Your task to perform on an android device: Search for Mexican restaurants on Maps Image 0: 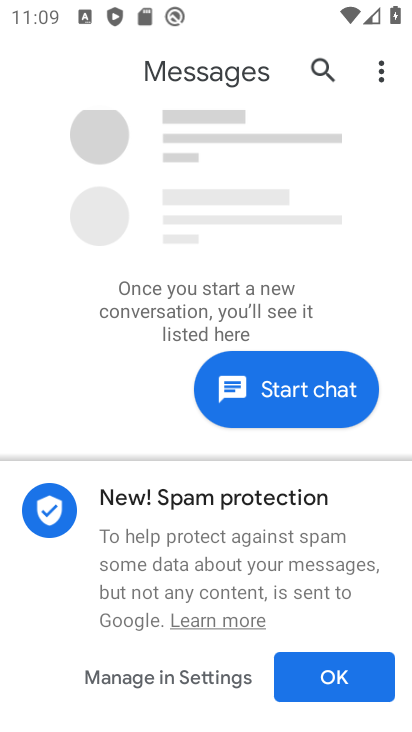
Step 0: press home button
Your task to perform on an android device: Search for Mexican restaurants on Maps Image 1: 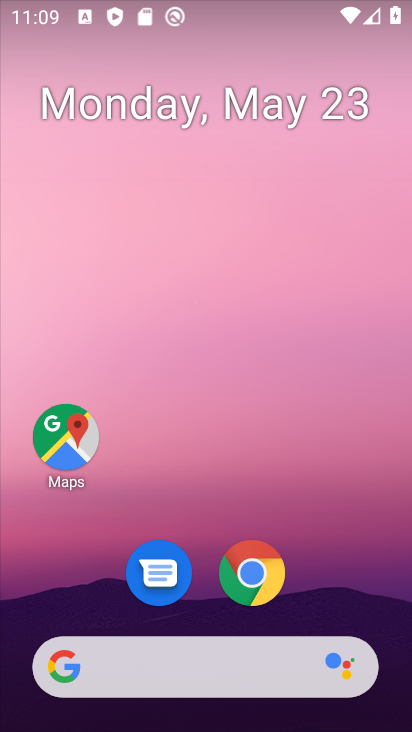
Step 1: click (68, 448)
Your task to perform on an android device: Search for Mexican restaurants on Maps Image 2: 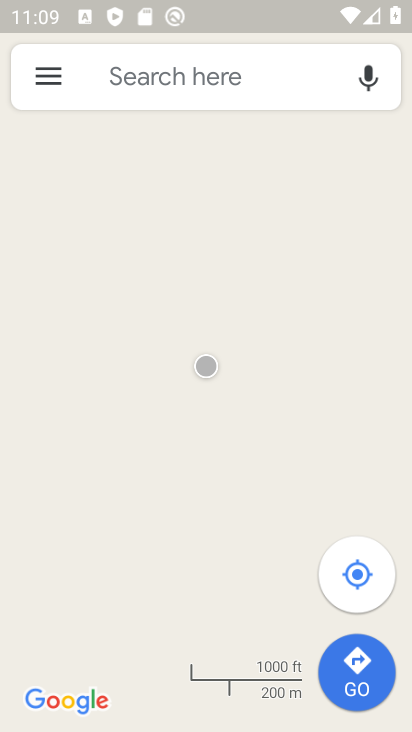
Step 2: click (191, 77)
Your task to perform on an android device: Search for Mexican restaurants on Maps Image 3: 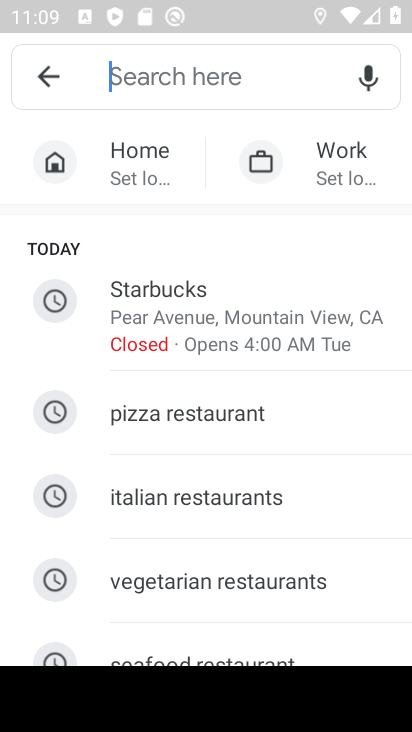
Step 3: type "me"
Your task to perform on an android device: Search for Mexican restaurants on Maps Image 4: 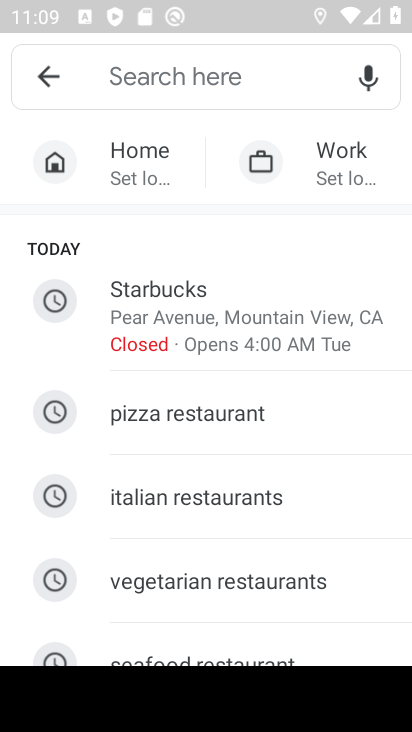
Step 4: click (263, 332)
Your task to perform on an android device: Search for Mexican restaurants on Maps Image 5: 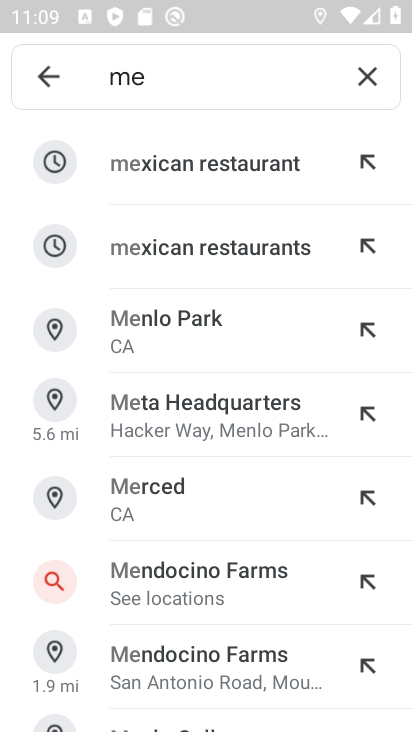
Step 5: click (275, 166)
Your task to perform on an android device: Search for Mexican restaurants on Maps Image 6: 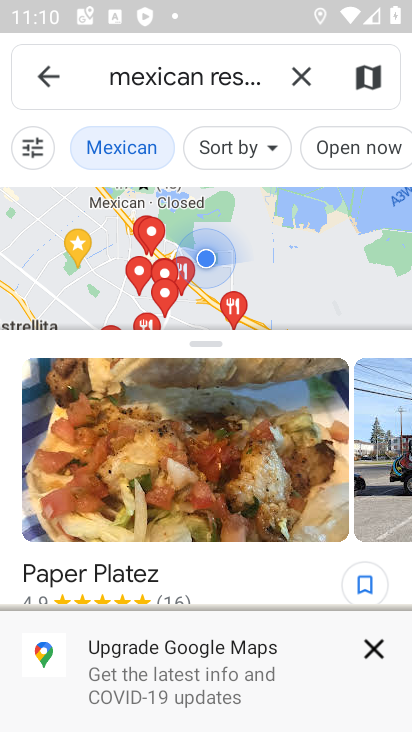
Step 6: task complete